Your task to perform on an android device: Open eBay Image 0: 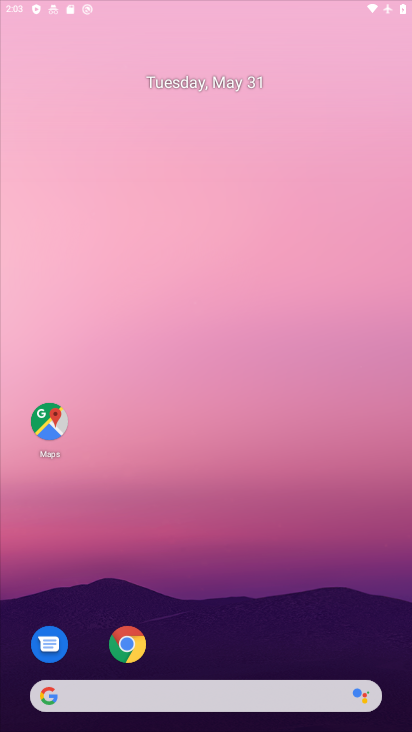
Step 0: click (310, 92)
Your task to perform on an android device: Open eBay Image 1: 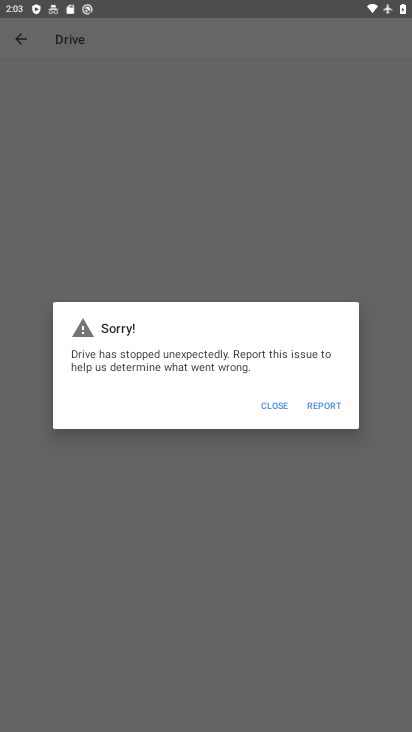
Step 1: drag from (304, 625) to (304, 521)
Your task to perform on an android device: Open eBay Image 2: 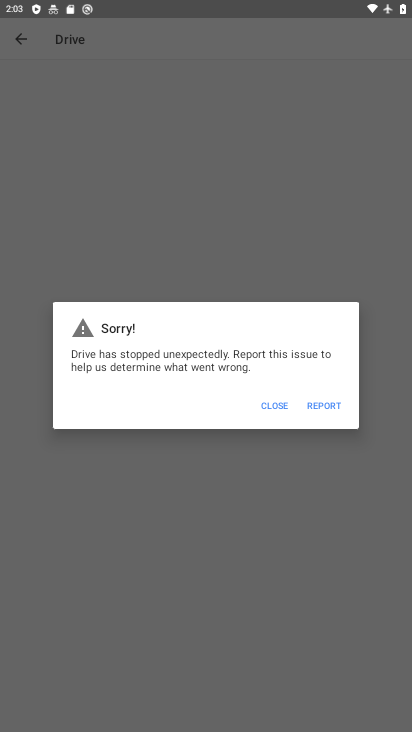
Step 2: press home button
Your task to perform on an android device: Open eBay Image 3: 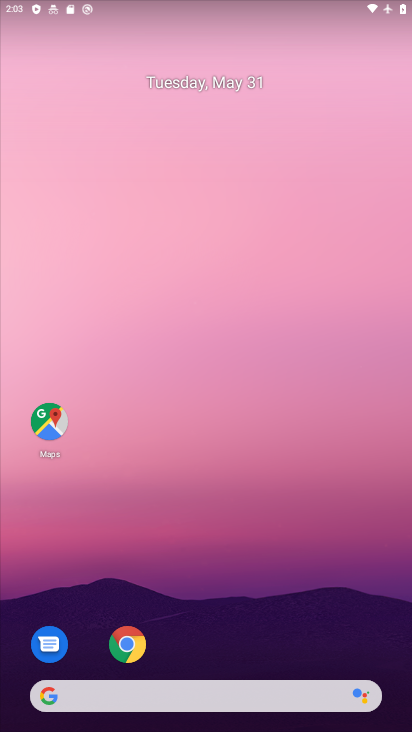
Step 3: click (129, 643)
Your task to perform on an android device: Open eBay Image 4: 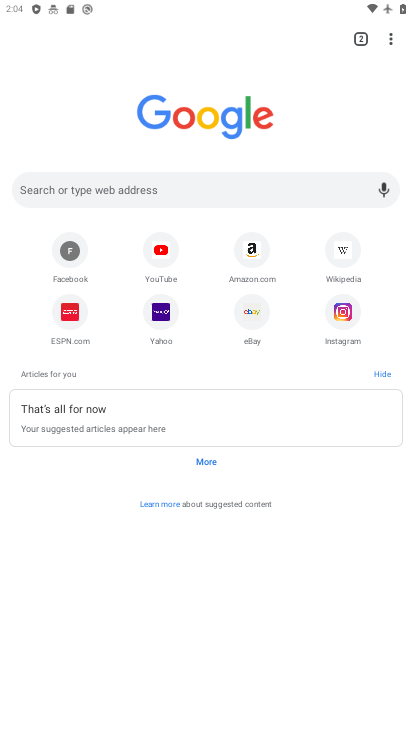
Step 4: click (245, 305)
Your task to perform on an android device: Open eBay Image 5: 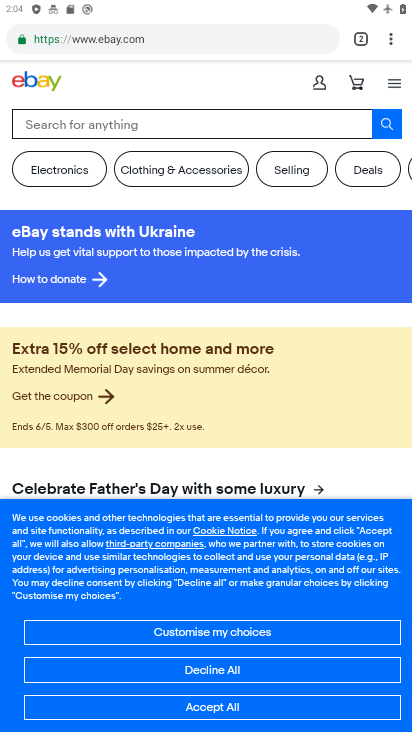
Step 5: task complete